Your task to perform on an android device: add a contact in the contacts app Image 0: 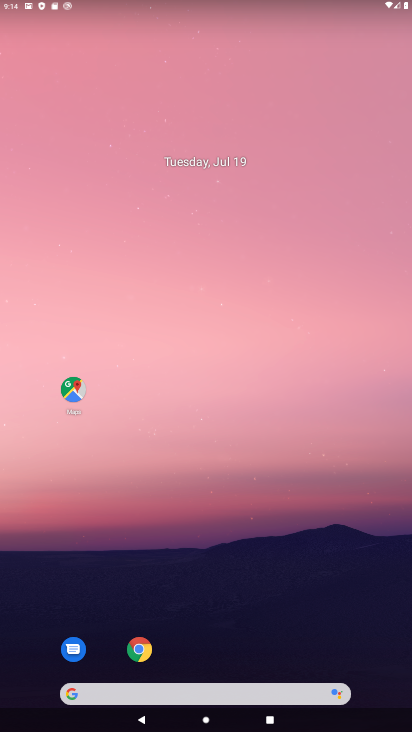
Step 0: drag from (367, 642) to (234, 1)
Your task to perform on an android device: add a contact in the contacts app Image 1: 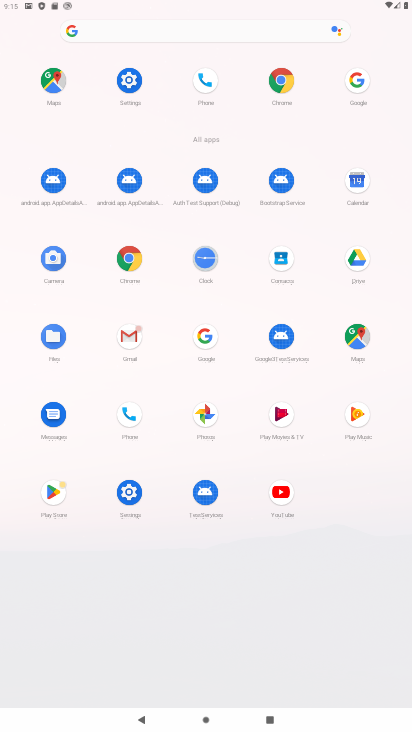
Step 1: click (284, 264)
Your task to perform on an android device: add a contact in the contacts app Image 2: 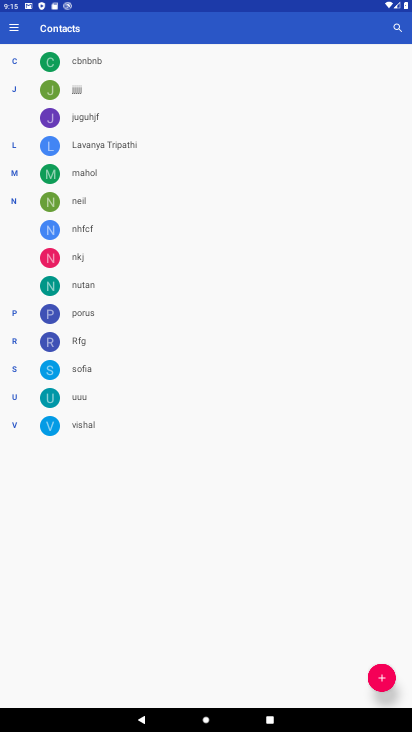
Step 2: click (388, 675)
Your task to perform on an android device: add a contact in the contacts app Image 3: 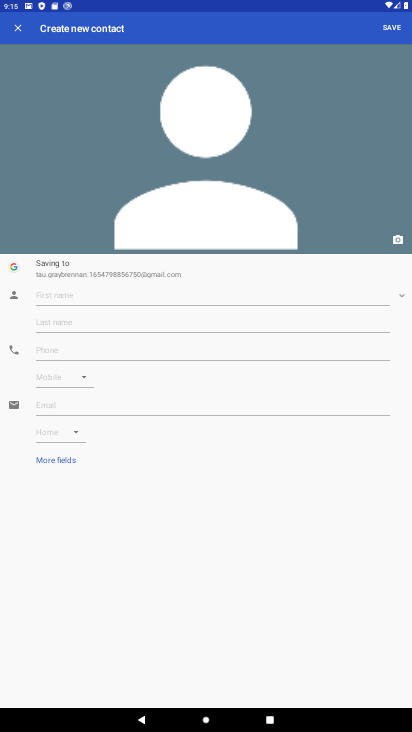
Step 3: click (210, 294)
Your task to perform on an android device: add a contact in the contacts app Image 4: 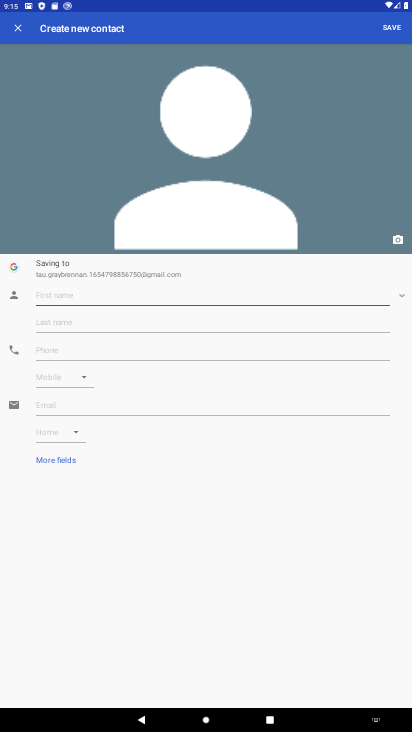
Step 4: type "shiavni"
Your task to perform on an android device: add a contact in the contacts app Image 5: 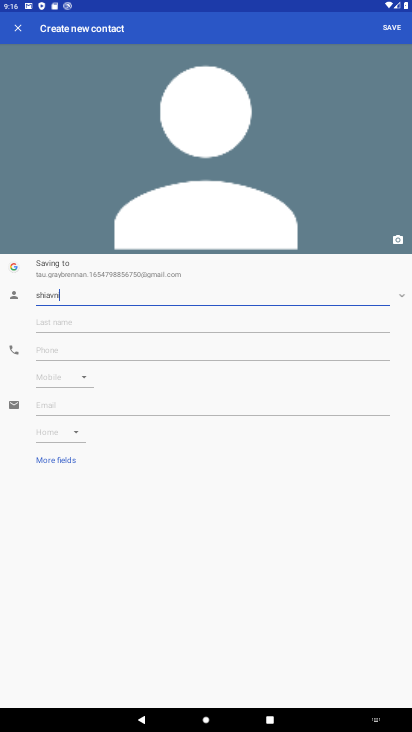
Step 5: click (399, 26)
Your task to perform on an android device: add a contact in the contacts app Image 6: 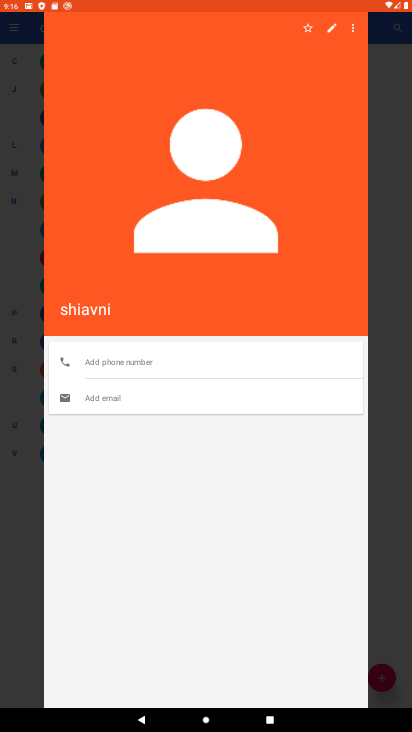
Step 6: task complete